Your task to perform on an android device: toggle location history Image 0: 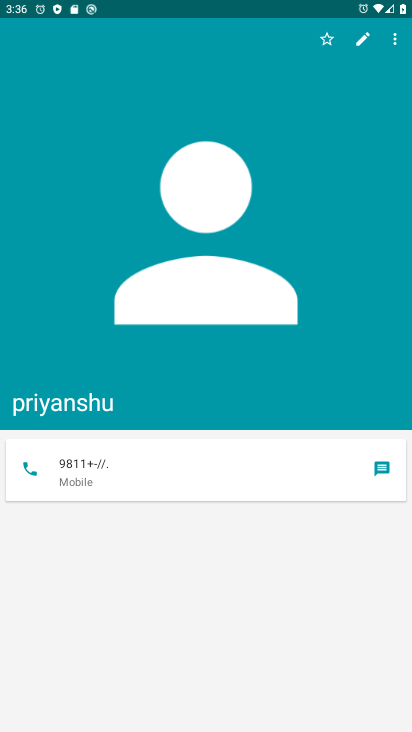
Step 0: press back button
Your task to perform on an android device: toggle location history Image 1: 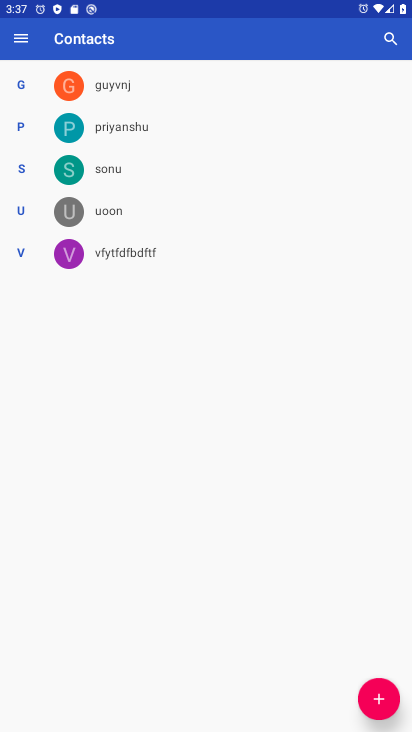
Step 1: press home button
Your task to perform on an android device: toggle location history Image 2: 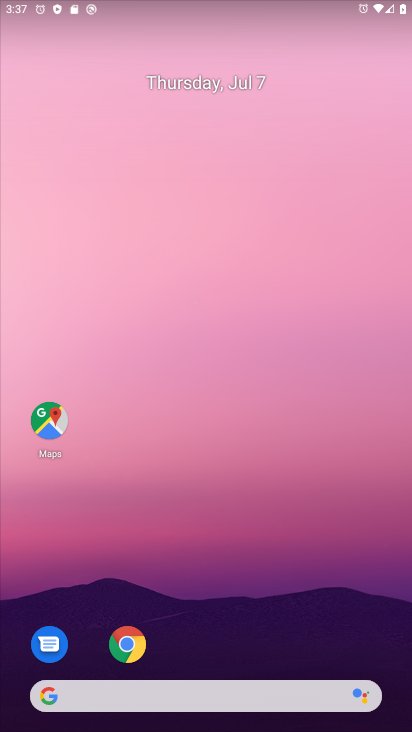
Step 2: click (48, 438)
Your task to perform on an android device: toggle location history Image 3: 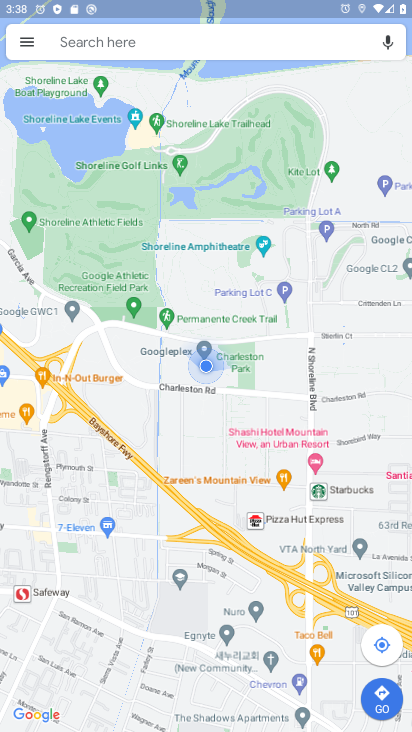
Step 3: click (18, 41)
Your task to perform on an android device: toggle location history Image 4: 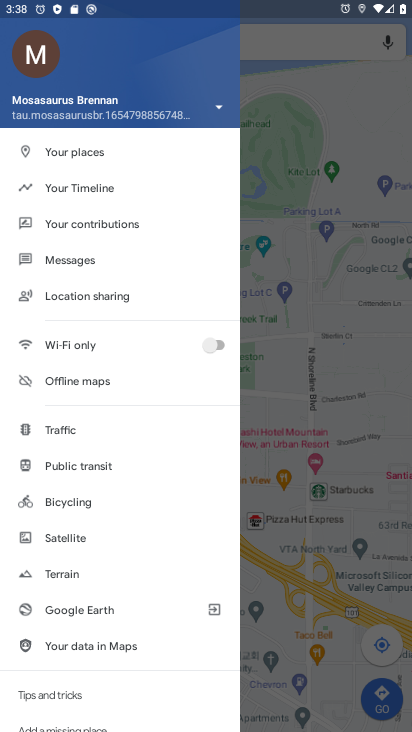
Step 4: click (75, 200)
Your task to perform on an android device: toggle location history Image 5: 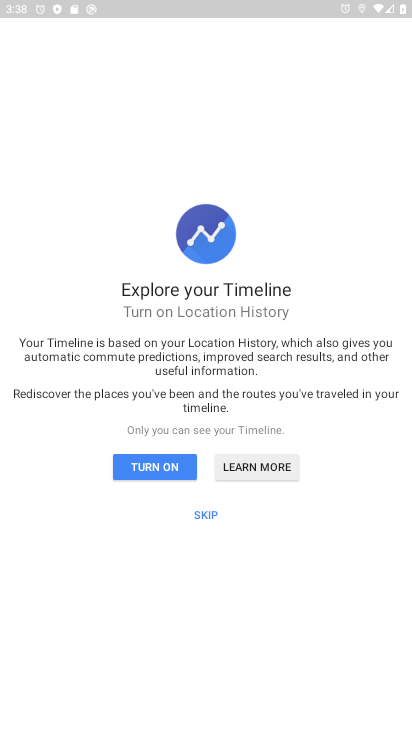
Step 5: click (168, 464)
Your task to perform on an android device: toggle location history Image 6: 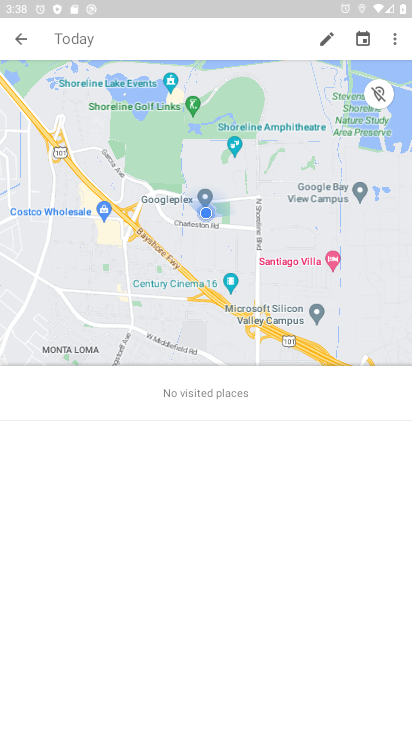
Step 6: task complete